Your task to perform on an android device: open app "Firefox Browser" (install if not already installed), go to login, and select forgot password Image 0: 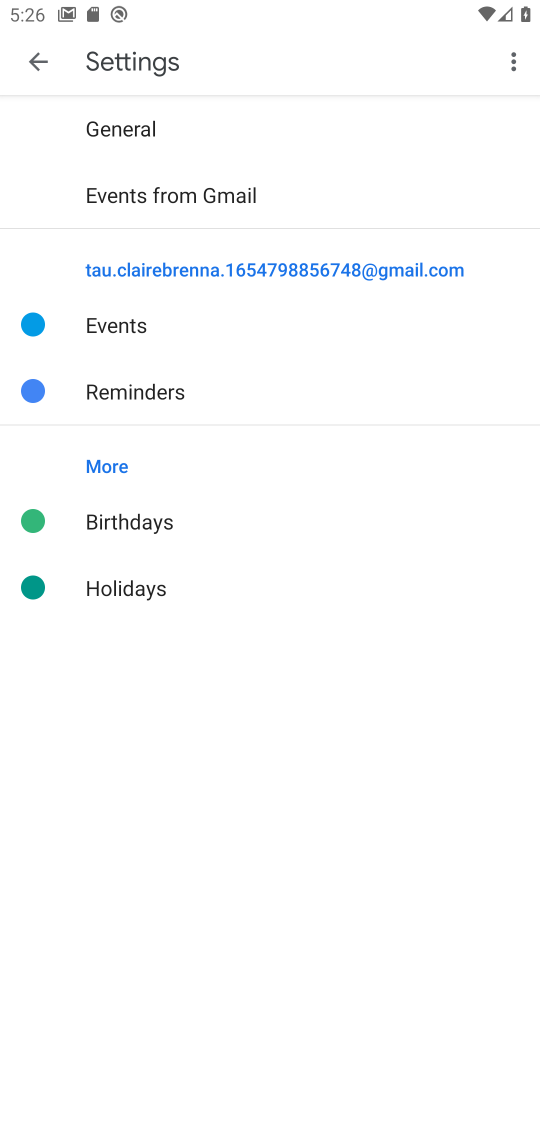
Step 0: press home button
Your task to perform on an android device: open app "Firefox Browser" (install if not already installed), go to login, and select forgot password Image 1: 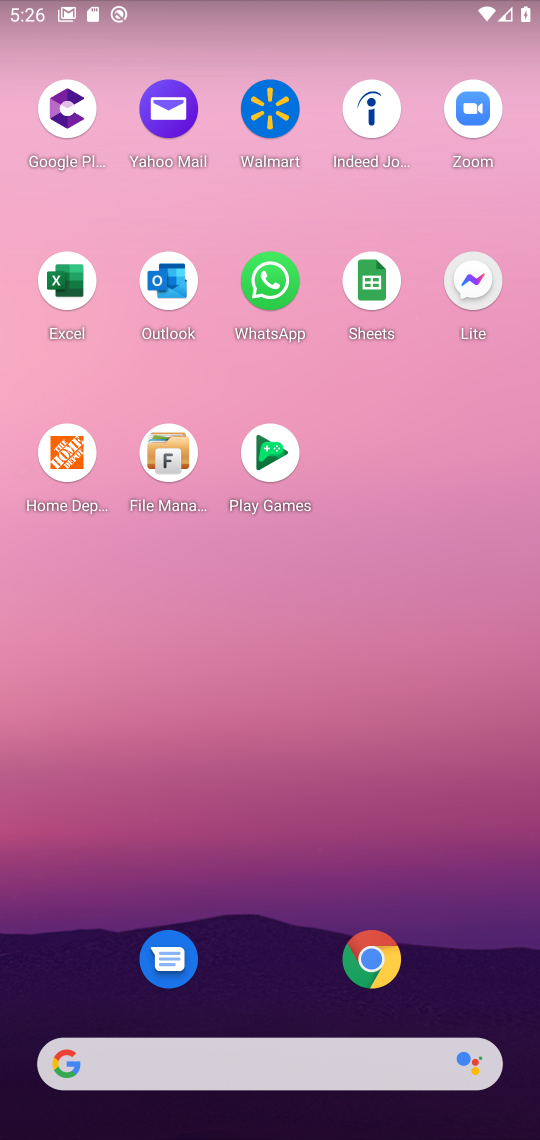
Step 1: drag from (291, 874) to (291, 294)
Your task to perform on an android device: open app "Firefox Browser" (install if not already installed), go to login, and select forgot password Image 2: 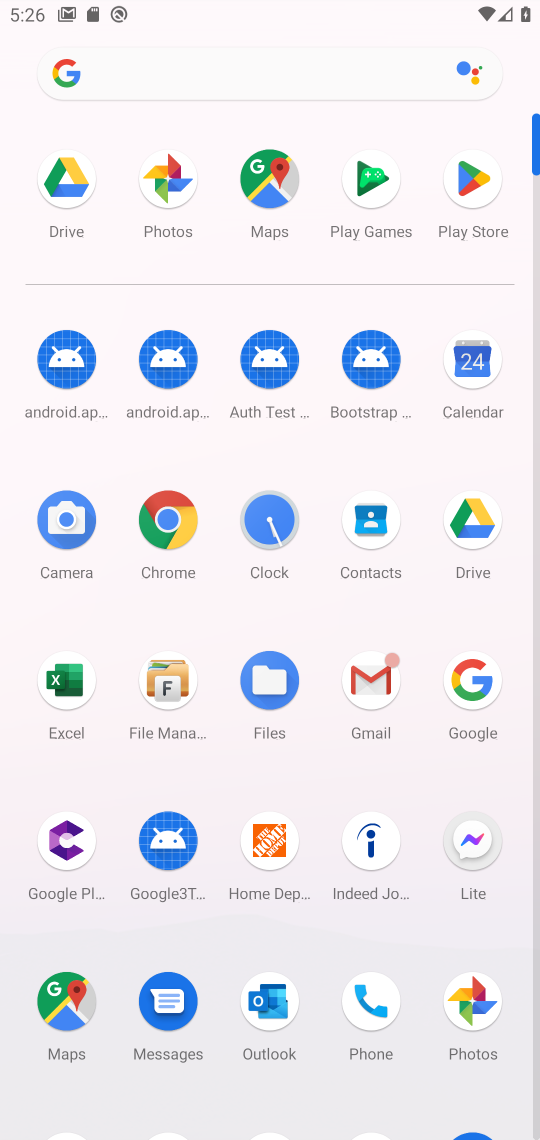
Step 2: click (479, 180)
Your task to perform on an android device: open app "Firefox Browser" (install if not already installed), go to login, and select forgot password Image 3: 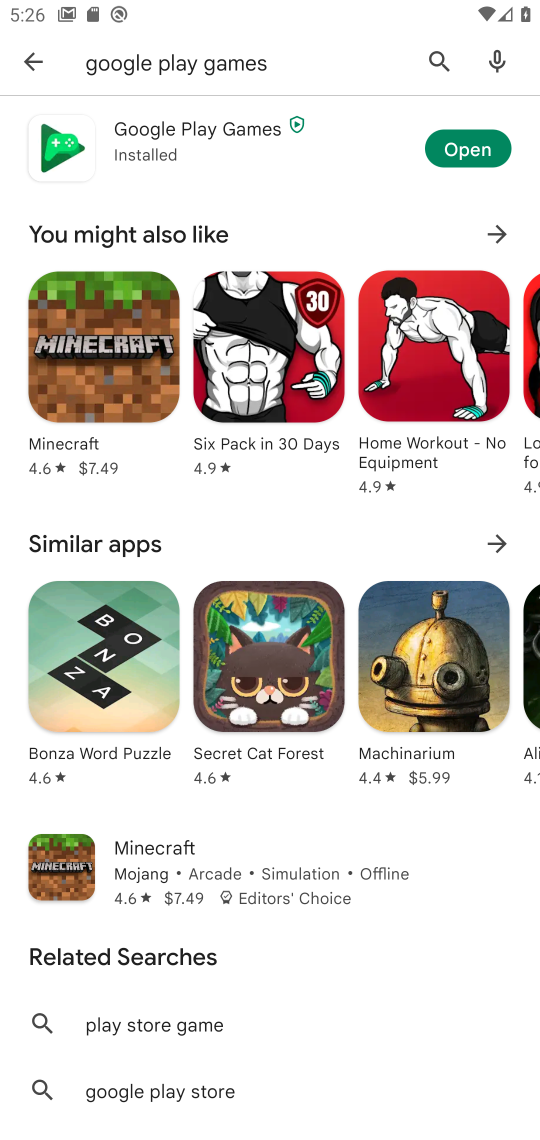
Step 3: click (436, 59)
Your task to perform on an android device: open app "Firefox Browser" (install if not already installed), go to login, and select forgot password Image 4: 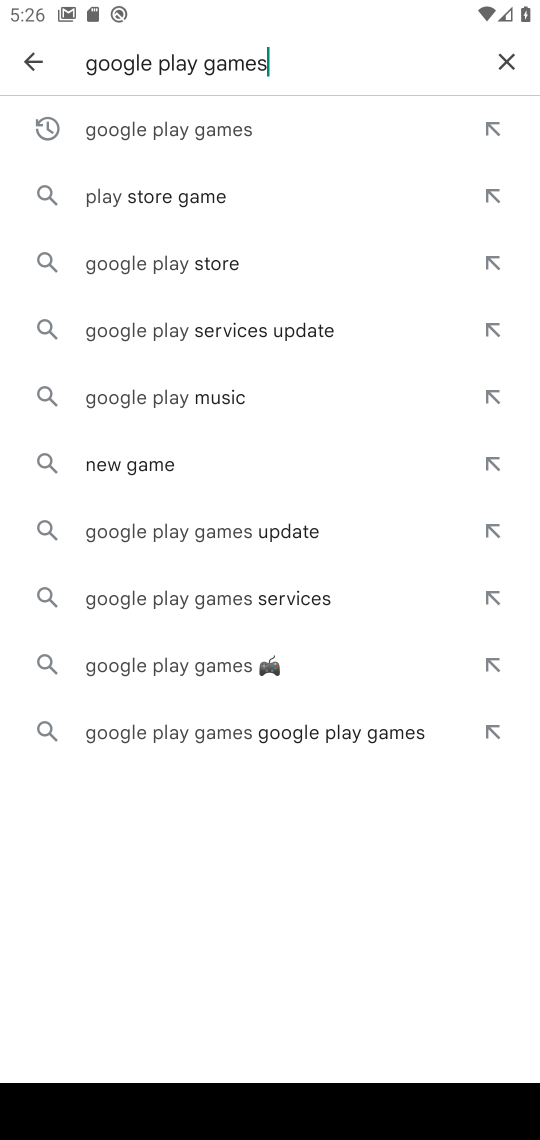
Step 4: click (515, 62)
Your task to perform on an android device: open app "Firefox Browser" (install if not already installed), go to login, and select forgot password Image 5: 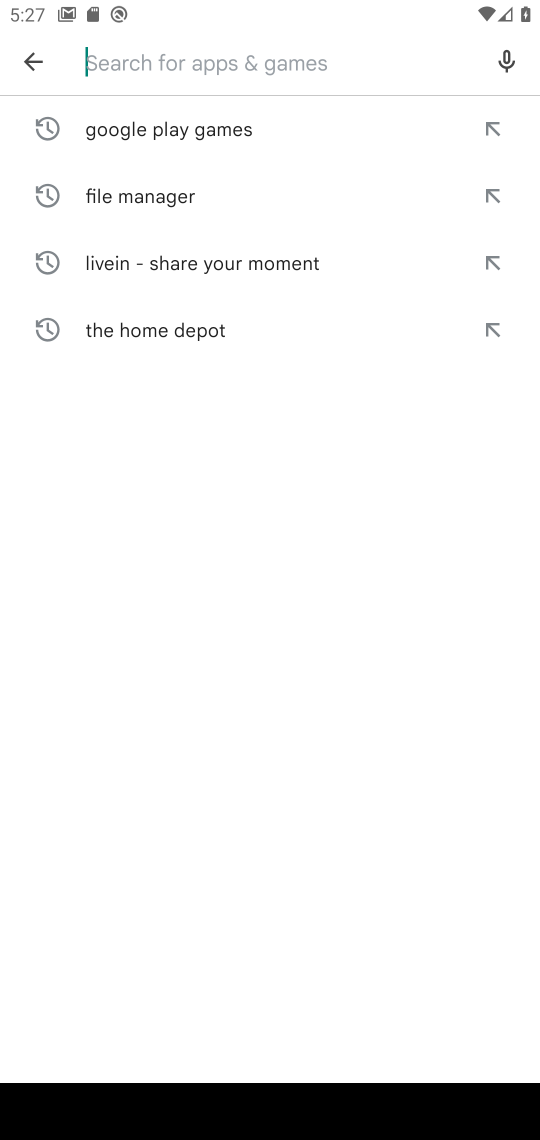
Step 5: type "Firefox Browser"
Your task to perform on an android device: open app "Firefox Browser" (install if not already installed), go to login, and select forgot password Image 6: 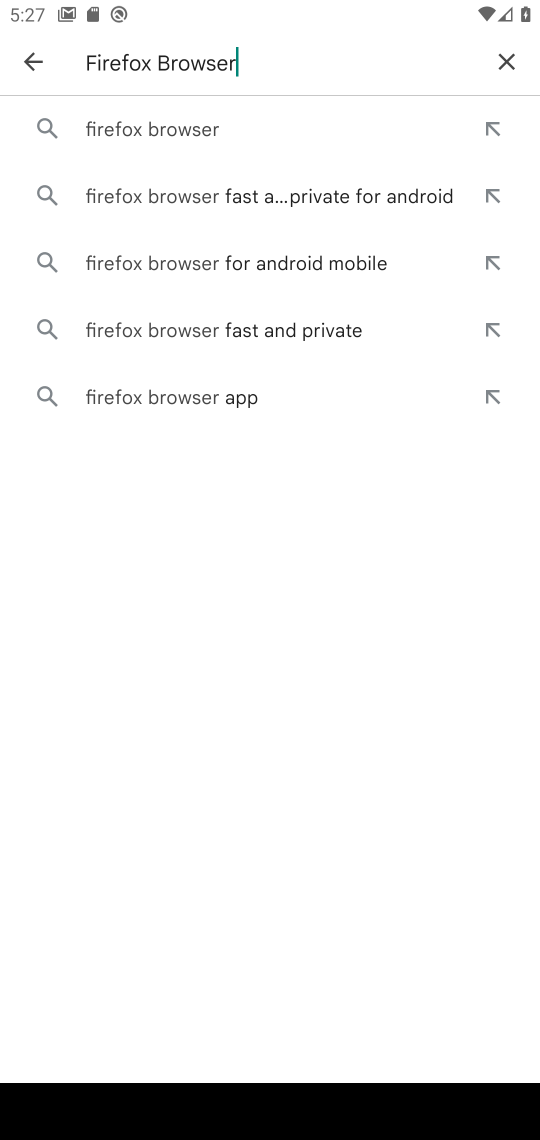
Step 6: click (191, 125)
Your task to perform on an android device: open app "Firefox Browser" (install if not already installed), go to login, and select forgot password Image 7: 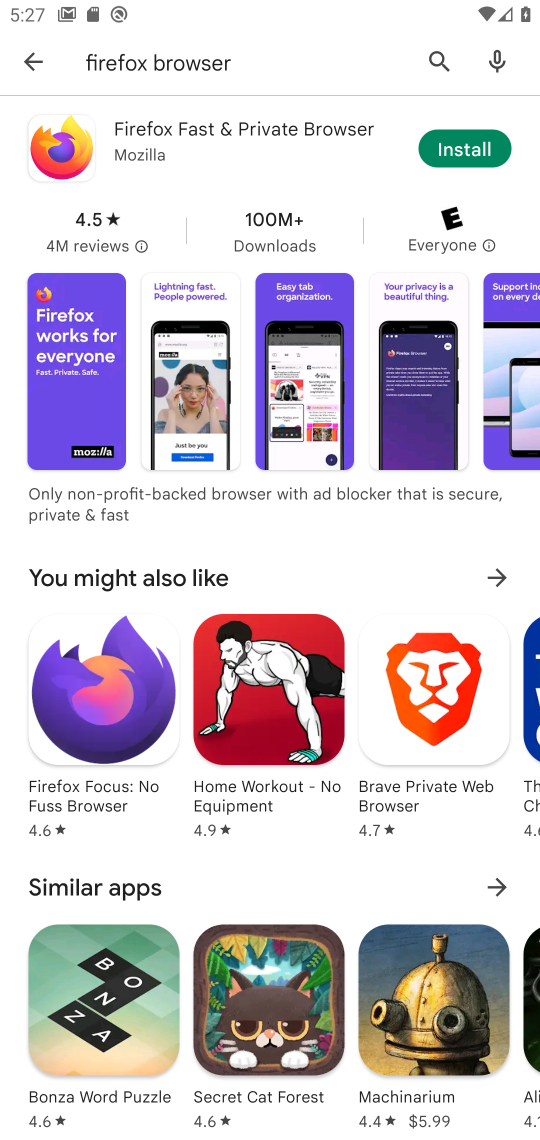
Step 7: click (453, 149)
Your task to perform on an android device: open app "Firefox Browser" (install if not already installed), go to login, and select forgot password Image 8: 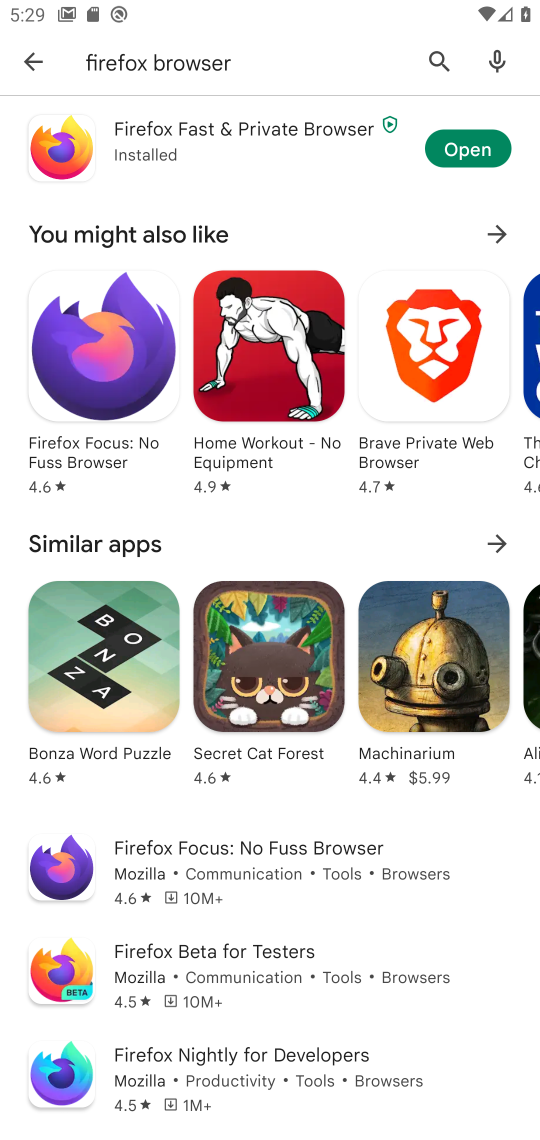
Step 8: click (484, 152)
Your task to perform on an android device: open app "Firefox Browser" (install if not already installed), go to login, and select forgot password Image 9: 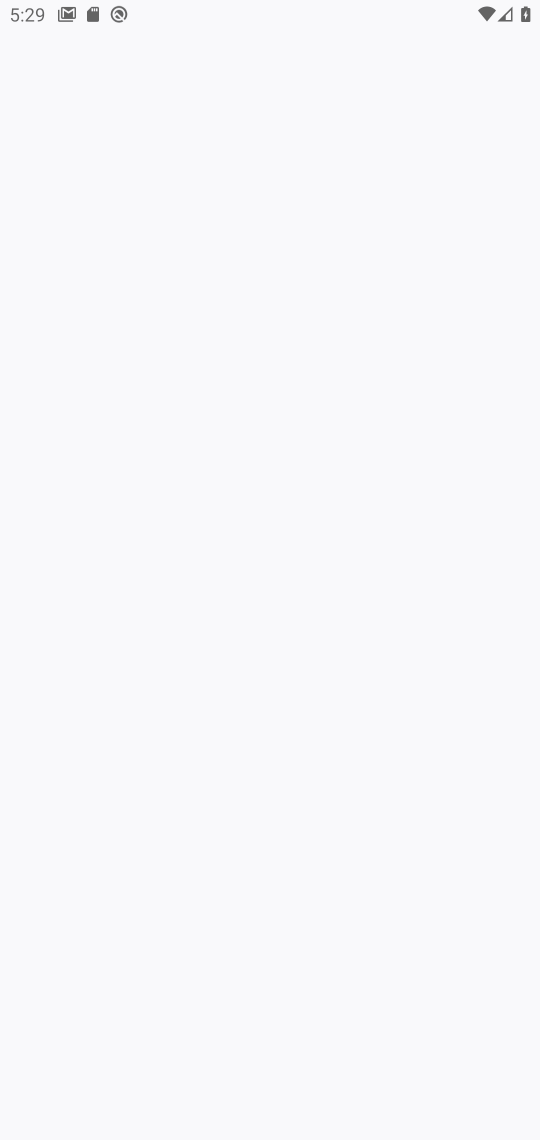
Step 9: task complete